Your task to perform on an android device: Open Chrome and go to settings Image 0: 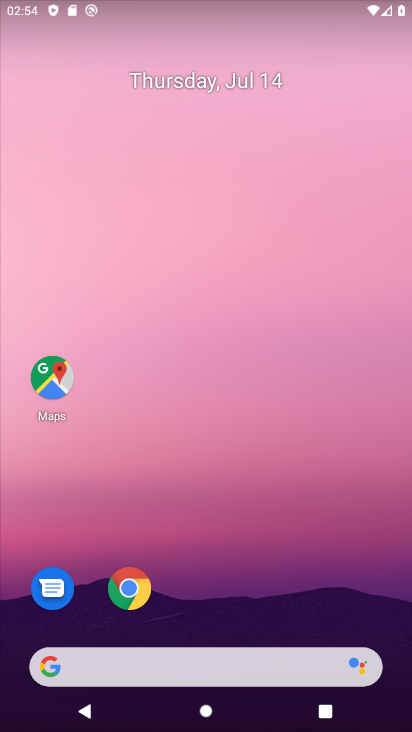
Step 0: click (127, 588)
Your task to perform on an android device: Open Chrome and go to settings Image 1: 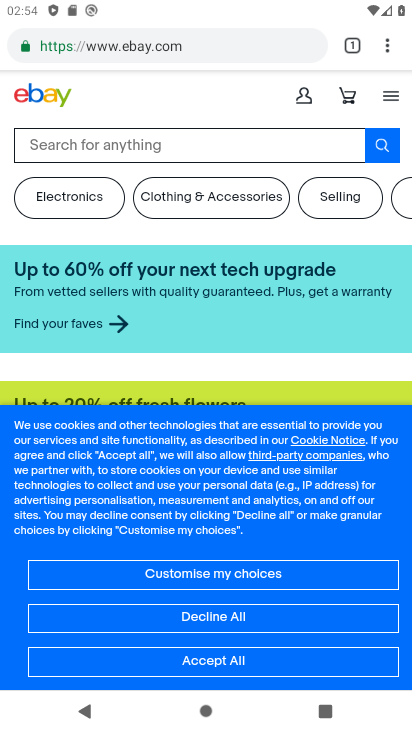
Step 1: click (388, 53)
Your task to perform on an android device: Open Chrome and go to settings Image 2: 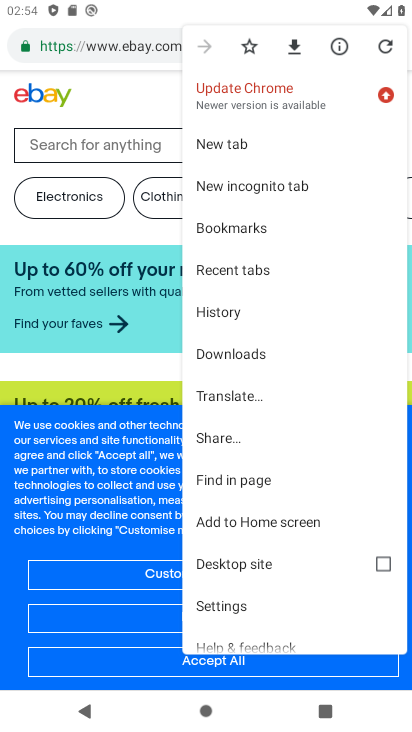
Step 2: click (246, 614)
Your task to perform on an android device: Open Chrome and go to settings Image 3: 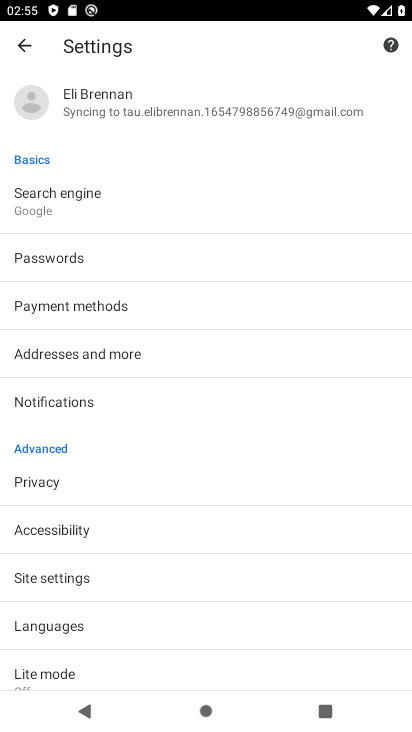
Step 3: task complete